Your task to perform on an android device: Open Google Chrome and open the bookmarks view Image 0: 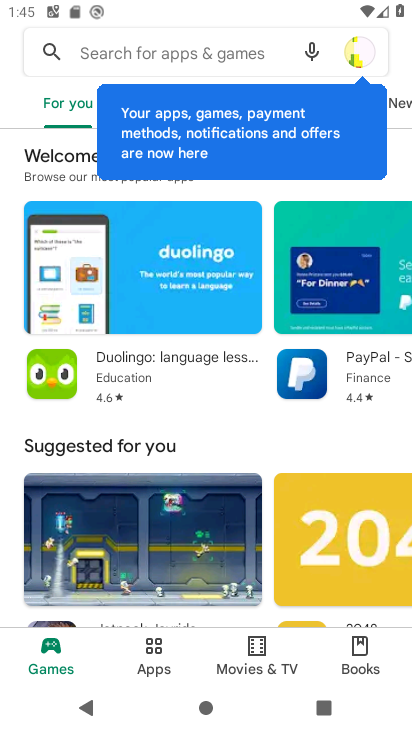
Step 0: press home button
Your task to perform on an android device: Open Google Chrome and open the bookmarks view Image 1: 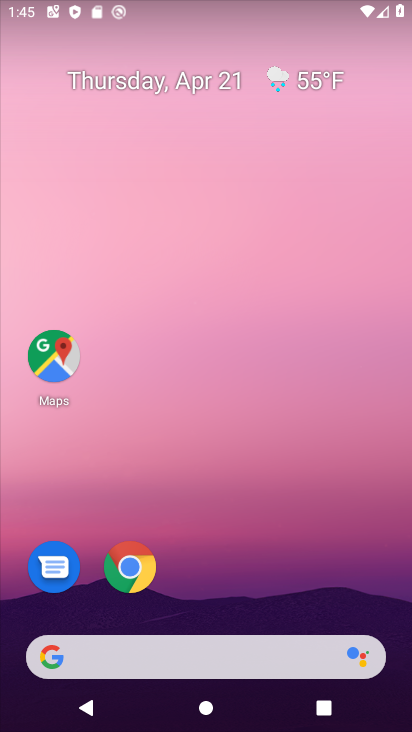
Step 1: click (121, 568)
Your task to perform on an android device: Open Google Chrome and open the bookmarks view Image 2: 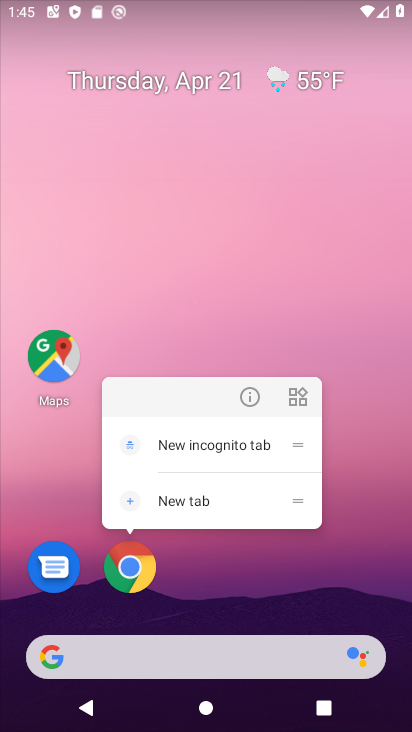
Step 2: click (125, 563)
Your task to perform on an android device: Open Google Chrome and open the bookmarks view Image 3: 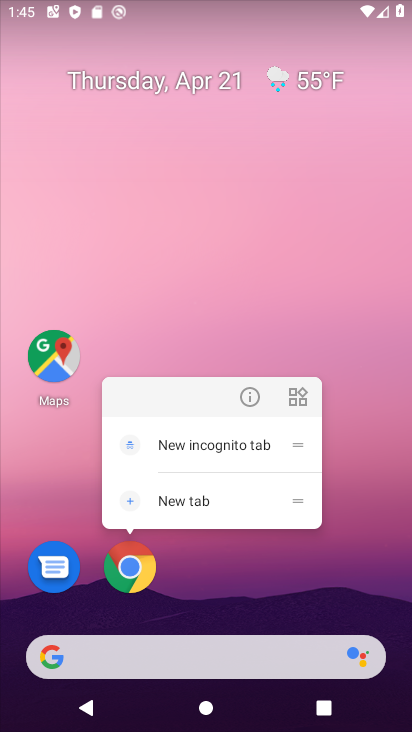
Step 3: click (127, 557)
Your task to perform on an android device: Open Google Chrome and open the bookmarks view Image 4: 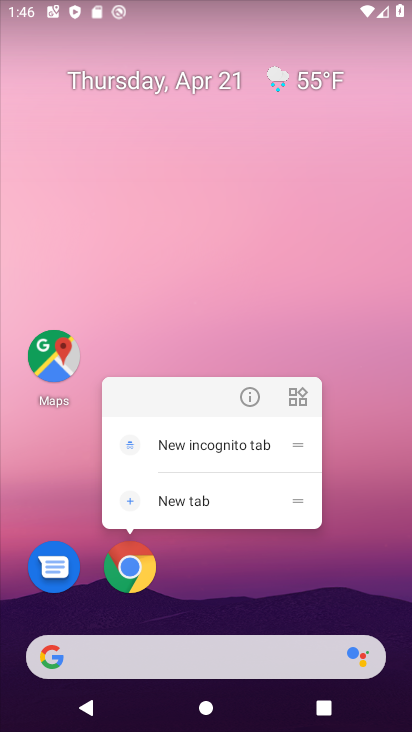
Step 4: click (245, 603)
Your task to perform on an android device: Open Google Chrome and open the bookmarks view Image 5: 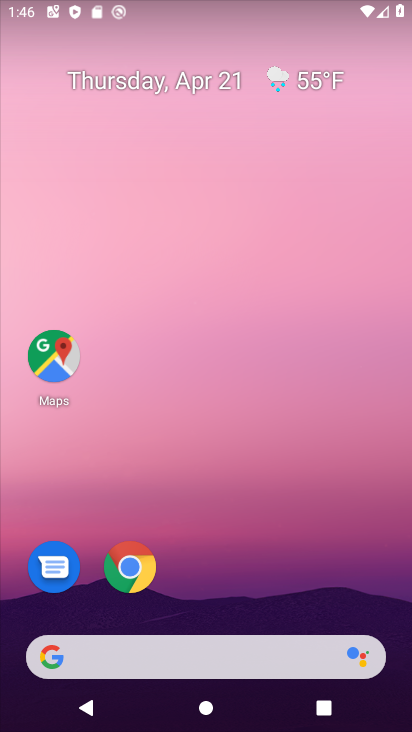
Step 5: click (141, 562)
Your task to perform on an android device: Open Google Chrome and open the bookmarks view Image 6: 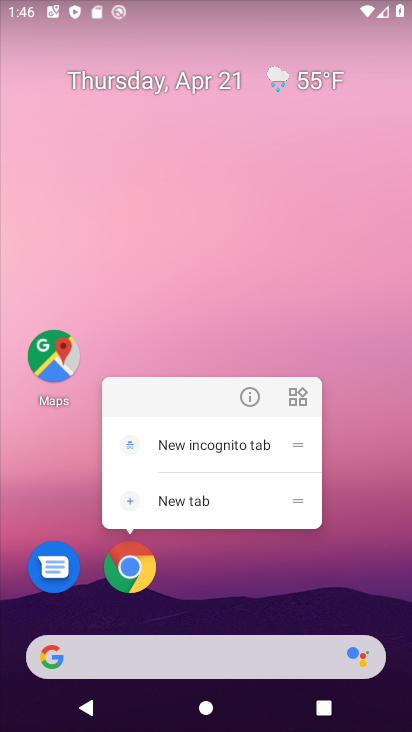
Step 6: click (192, 587)
Your task to perform on an android device: Open Google Chrome and open the bookmarks view Image 7: 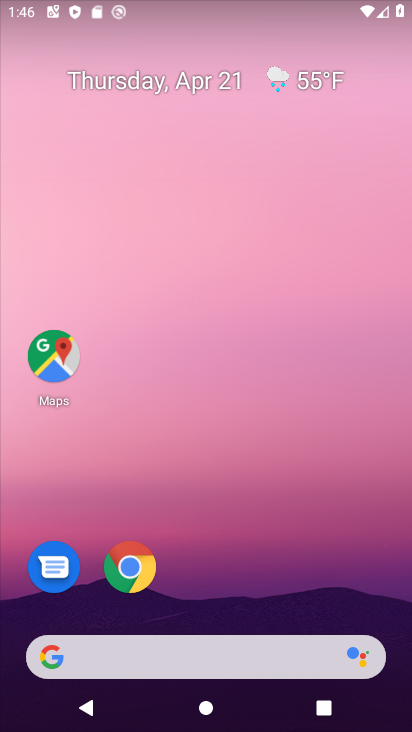
Step 7: drag from (248, 617) to (233, 226)
Your task to perform on an android device: Open Google Chrome and open the bookmarks view Image 8: 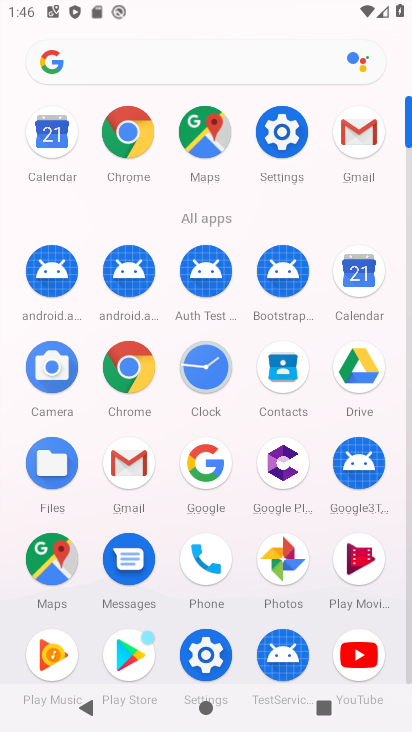
Step 8: click (123, 124)
Your task to perform on an android device: Open Google Chrome and open the bookmarks view Image 9: 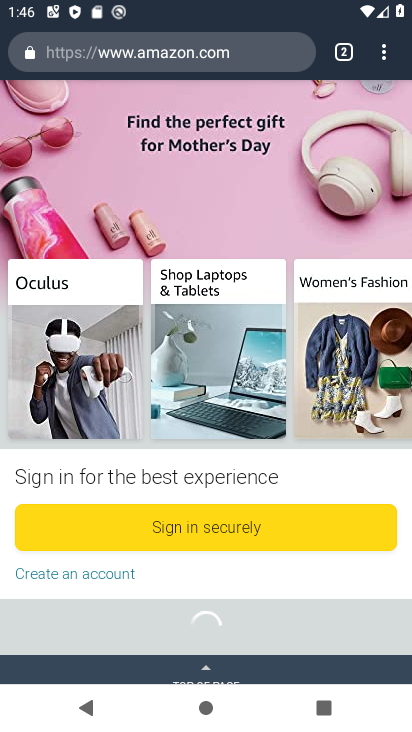
Step 9: click (385, 48)
Your task to perform on an android device: Open Google Chrome and open the bookmarks view Image 10: 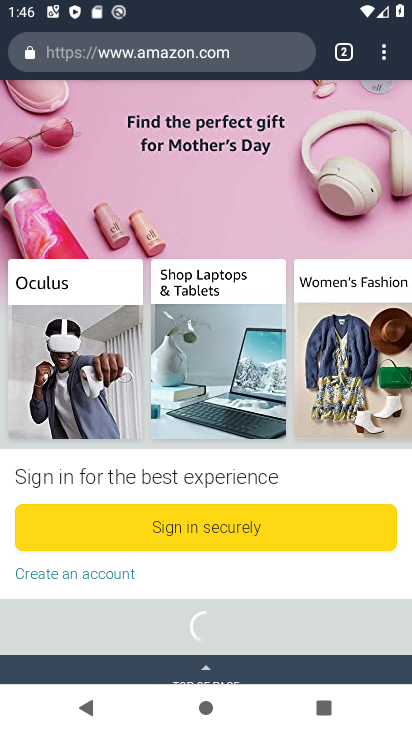
Step 10: click (377, 53)
Your task to perform on an android device: Open Google Chrome and open the bookmarks view Image 11: 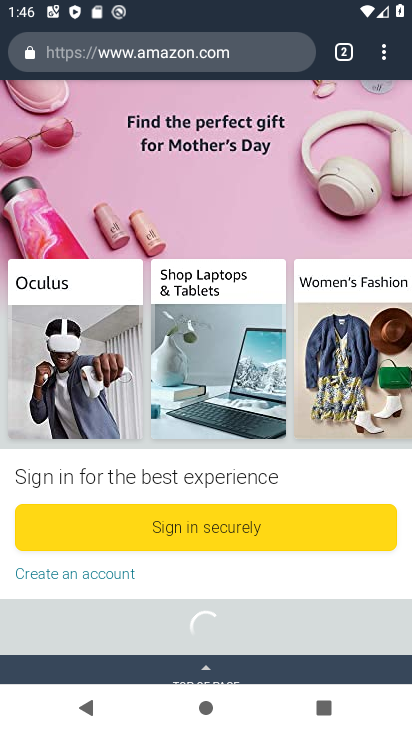
Step 11: click (387, 55)
Your task to perform on an android device: Open Google Chrome and open the bookmarks view Image 12: 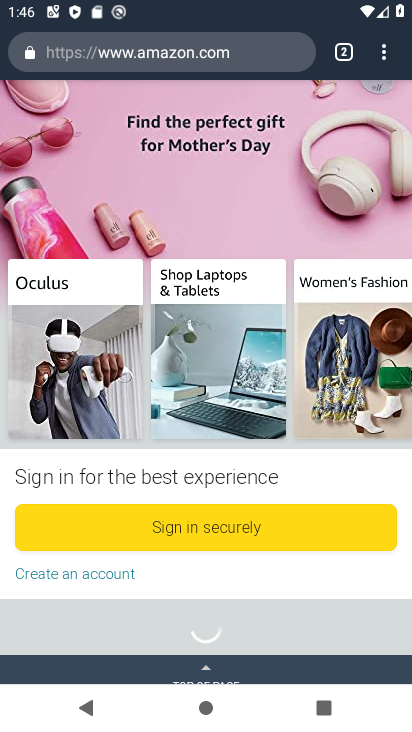
Step 12: click (372, 55)
Your task to perform on an android device: Open Google Chrome and open the bookmarks view Image 13: 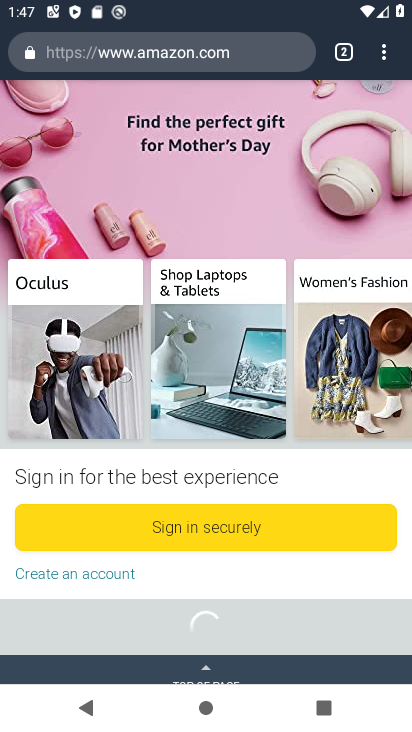
Step 13: click (385, 57)
Your task to perform on an android device: Open Google Chrome and open the bookmarks view Image 14: 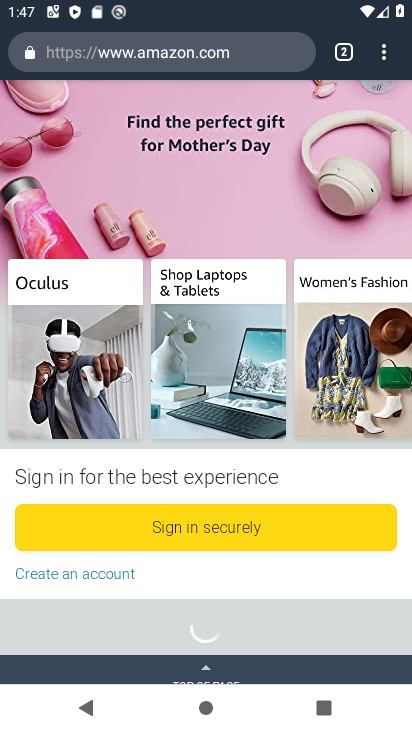
Step 14: click (386, 51)
Your task to perform on an android device: Open Google Chrome and open the bookmarks view Image 15: 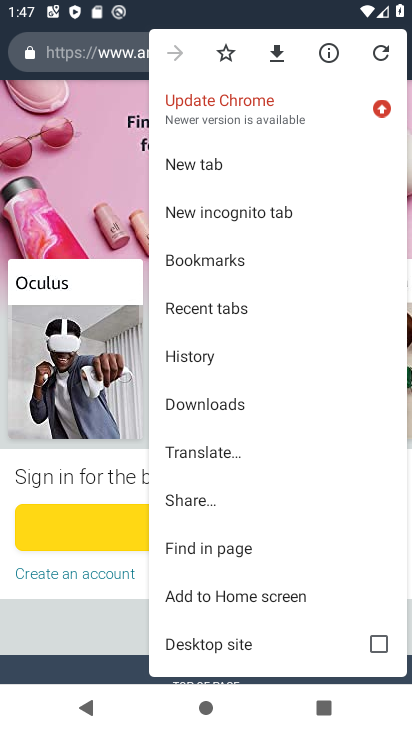
Step 15: click (250, 262)
Your task to perform on an android device: Open Google Chrome and open the bookmarks view Image 16: 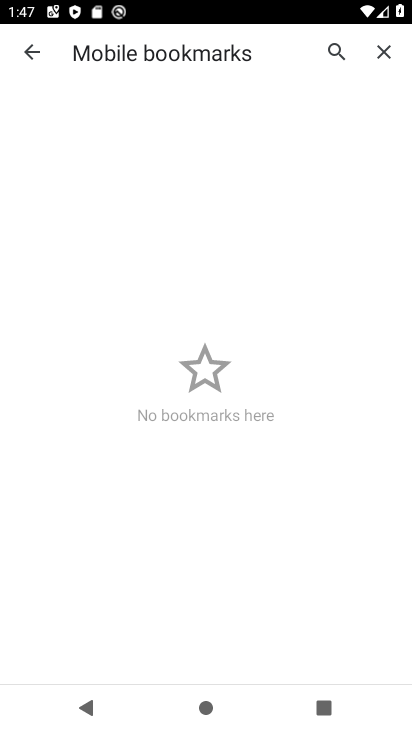
Step 16: task complete